Your task to perform on an android device: change the clock display to analog Image 0: 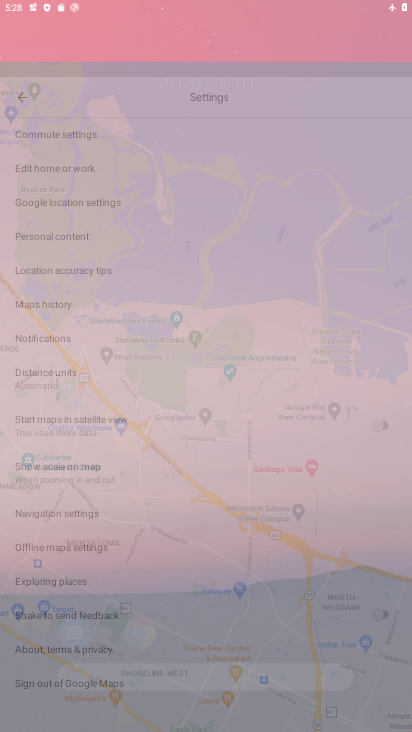
Step 0: drag from (365, 545) to (303, 24)
Your task to perform on an android device: change the clock display to analog Image 1: 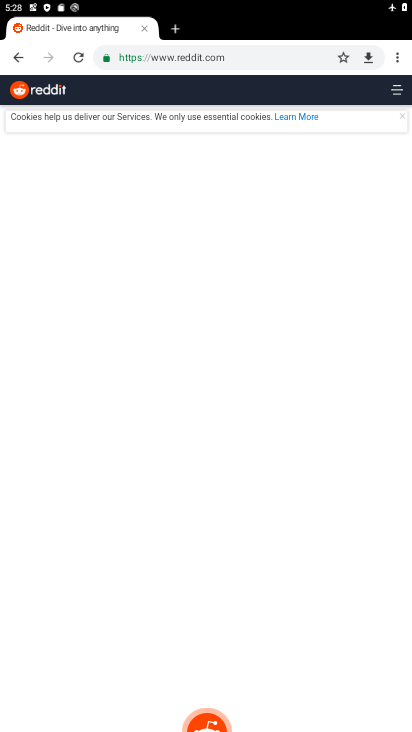
Step 1: press home button
Your task to perform on an android device: change the clock display to analog Image 2: 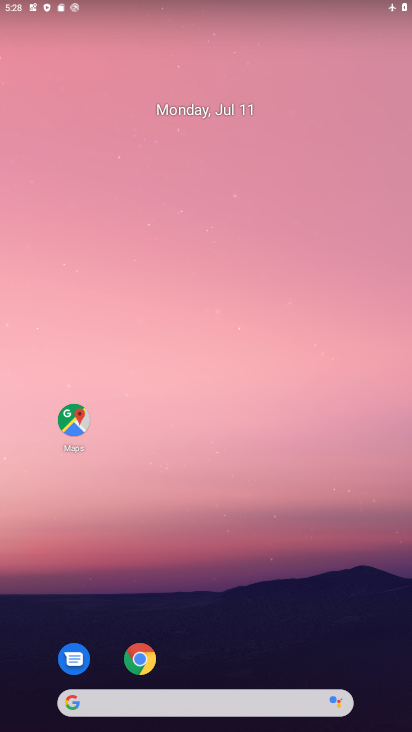
Step 2: drag from (382, 656) to (307, 57)
Your task to perform on an android device: change the clock display to analog Image 3: 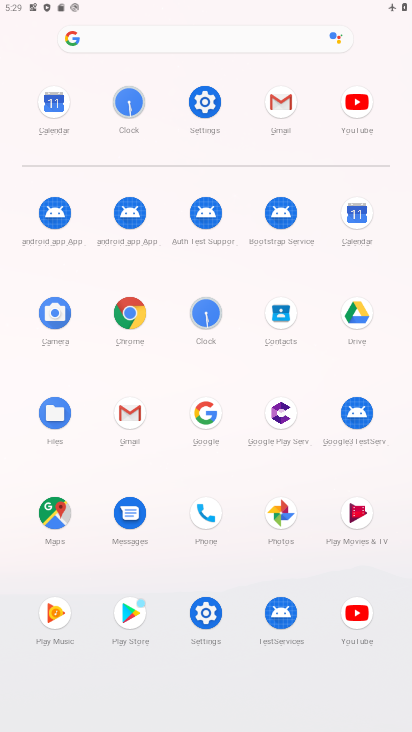
Step 3: click (203, 311)
Your task to perform on an android device: change the clock display to analog Image 4: 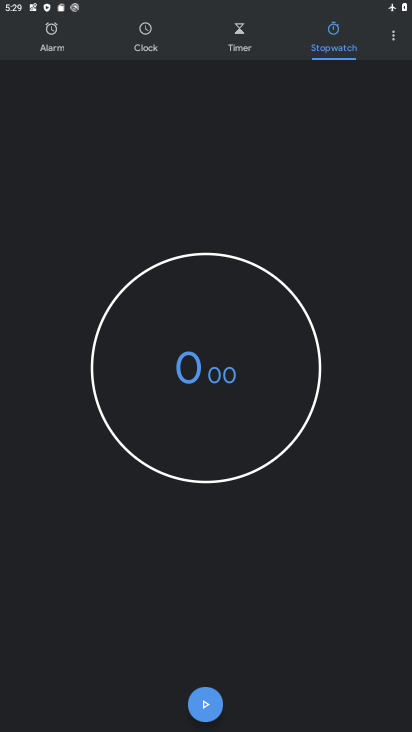
Step 4: click (392, 39)
Your task to perform on an android device: change the clock display to analog Image 5: 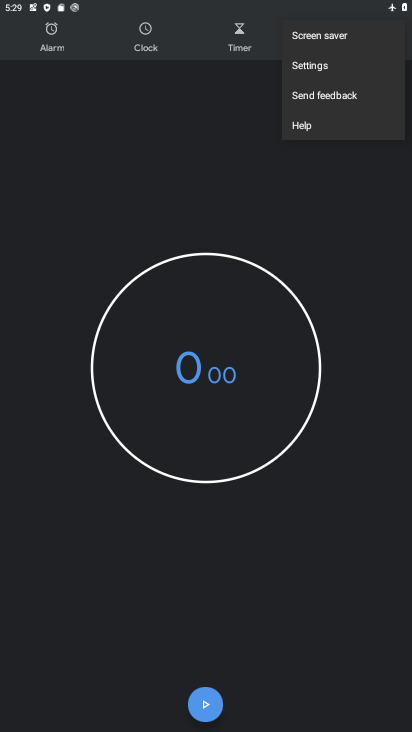
Step 5: click (312, 71)
Your task to perform on an android device: change the clock display to analog Image 6: 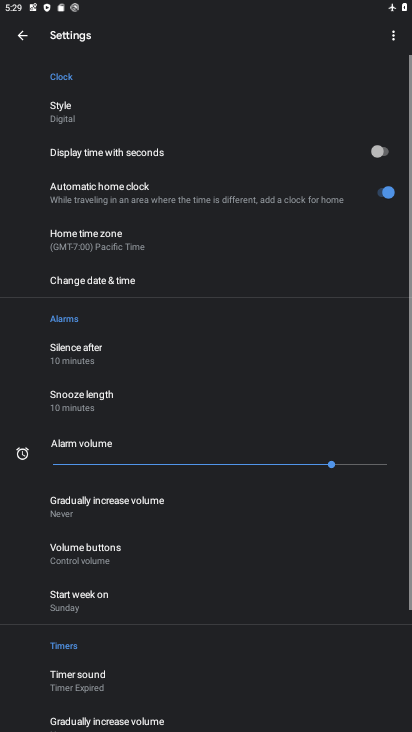
Step 6: click (63, 119)
Your task to perform on an android device: change the clock display to analog Image 7: 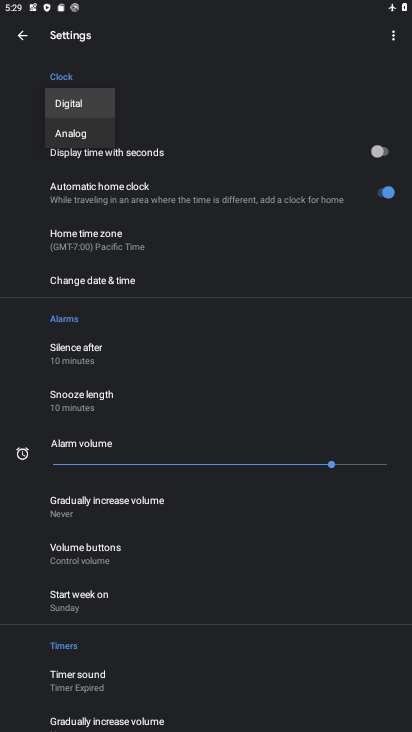
Step 7: click (75, 134)
Your task to perform on an android device: change the clock display to analog Image 8: 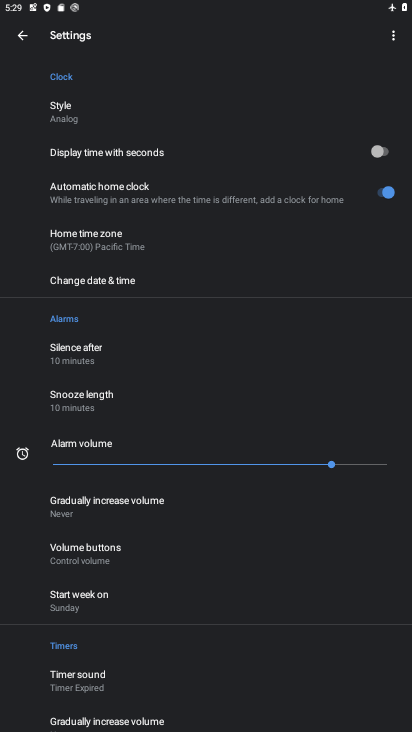
Step 8: task complete